Your task to perform on an android device: toggle pop-ups in chrome Image 0: 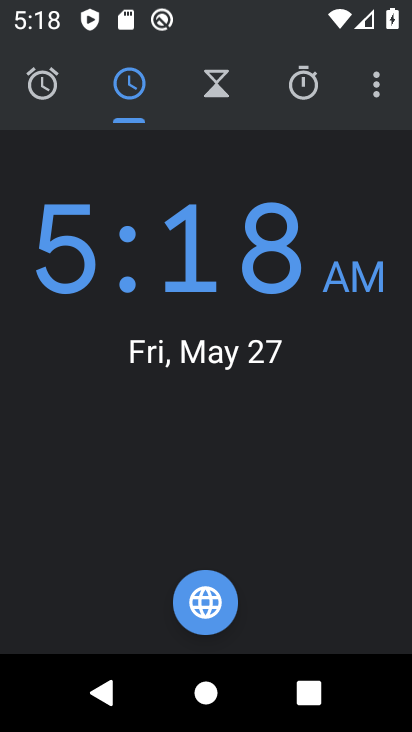
Step 0: press back button
Your task to perform on an android device: toggle pop-ups in chrome Image 1: 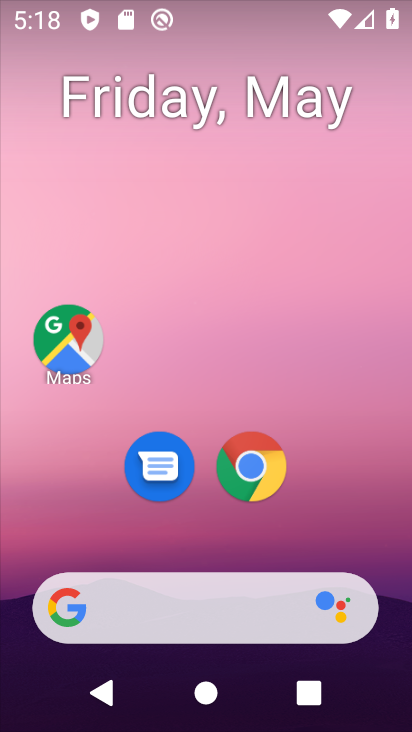
Step 1: drag from (306, 257) to (257, 6)
Your task to perform on an android device: toggle pop-ups in chrome Image 2: 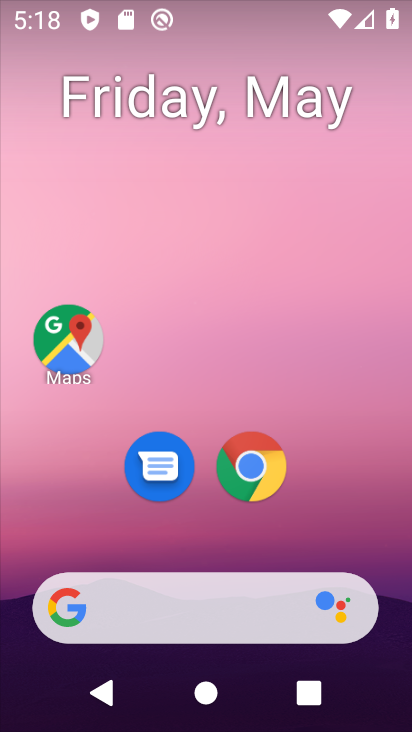
Step 2: drag from (330, 436) to (209, 11)
Your task to perform on an android device: toggle pop-ups in chrome Image 3: 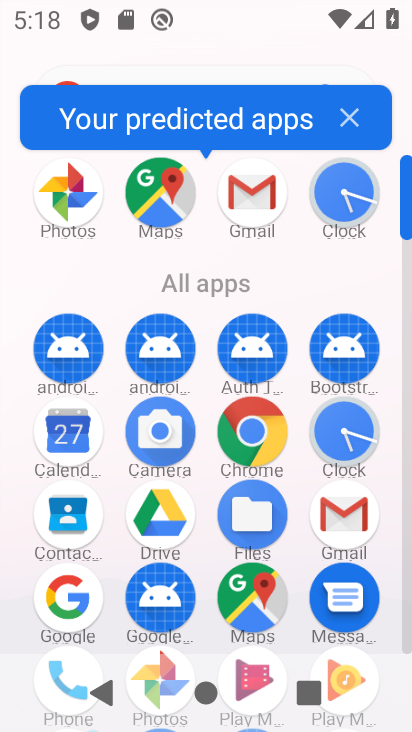
Step 3: drag from (0, 526) to (0, 260)
Your task to perform on an android device: toggle pop-ups in chrome Image 4: 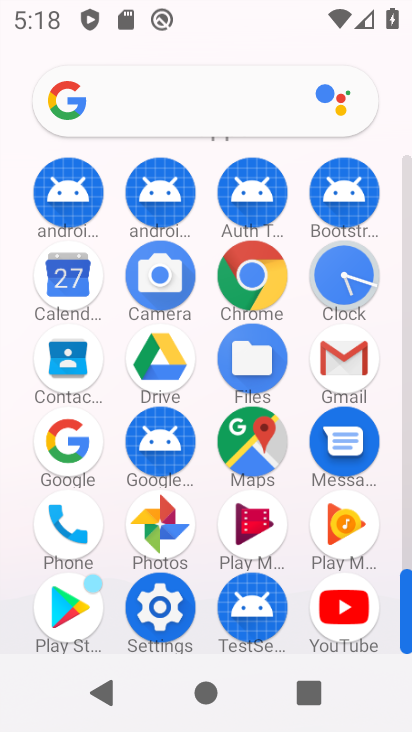
Step 4: click (245, 275)
Your task to perform on an android device: toggle pop-ups in chrome Image 5: 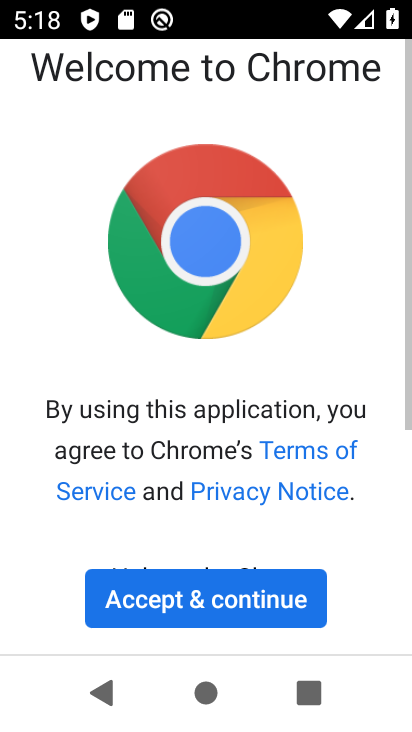
Step 5: click (230, 592)
Your task to perform on an android device: toggle pop-ups in chrome Image 6: 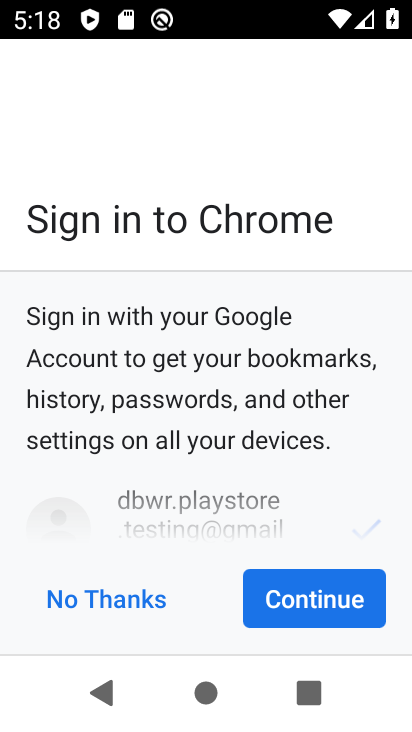
Step 6: click (349, 582)
Your task to perform on an android device: toggle pop-ups in chrome Image 7: 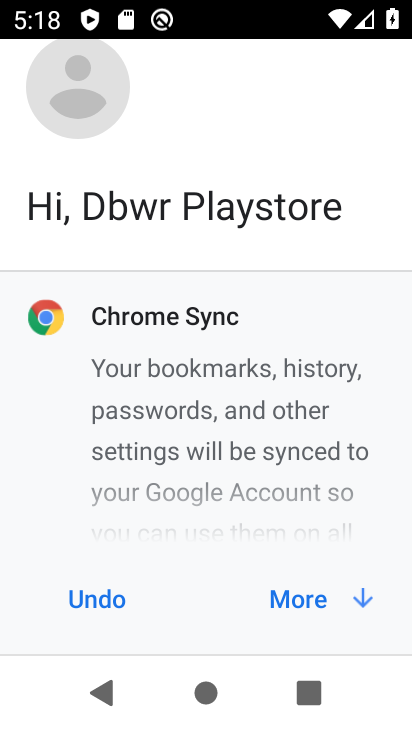
Step 7: click (321, 601)
Your task to perform on an android device: toggle pop-ups in chrome Image 8: 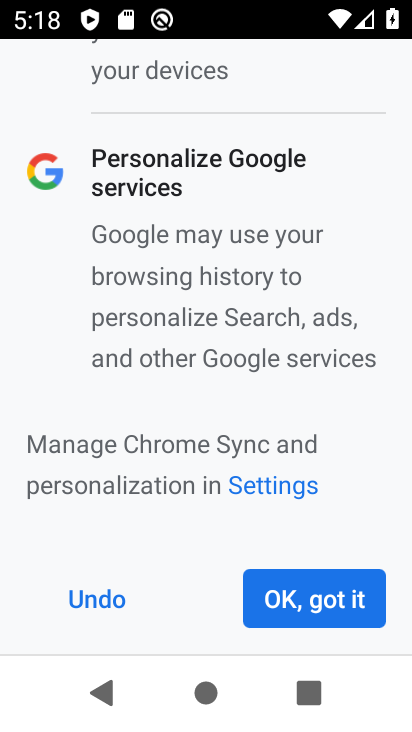
Step 8: click (321, 600)
Your task to perform on an android device: toggle pop-ups in chrome Image 9: 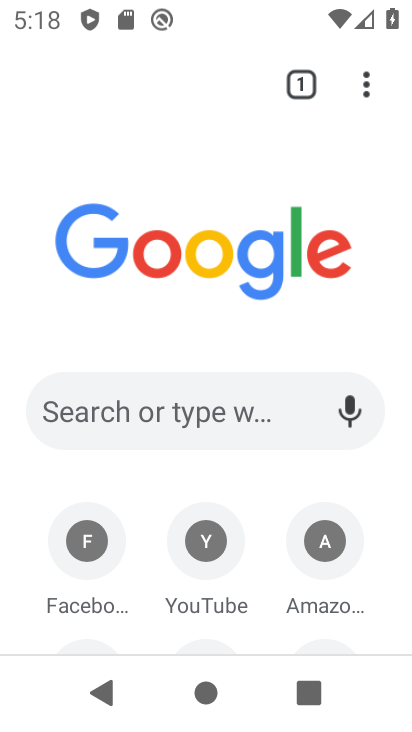
Step 9: drag from (365, 94) to (94, 519)
Your task to perform on an android device: toggle pop-ups in chrome Image 10: 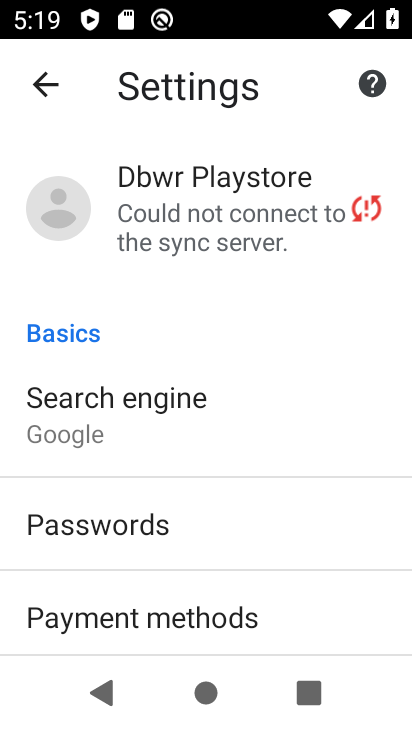
Step 10: drag from (256, 505) to (246, 153)
Your task to perform on an android device: toggle pop-ups in chrome Image 11: 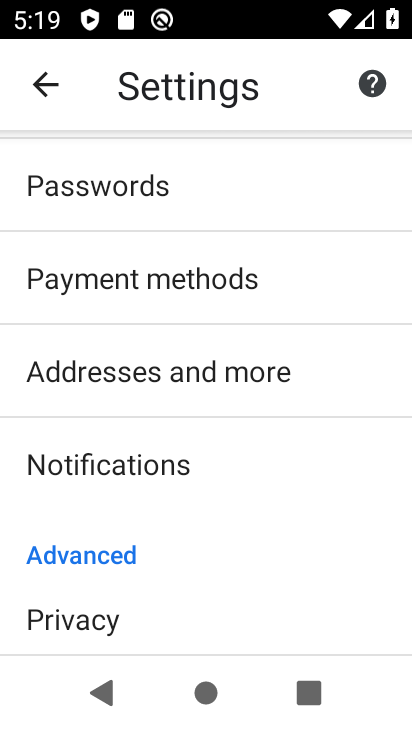
Step 11: drag from (260, 542) to (234, 162)
Your task to perform on an android device: toggle pop-ups in chrome Image 12: 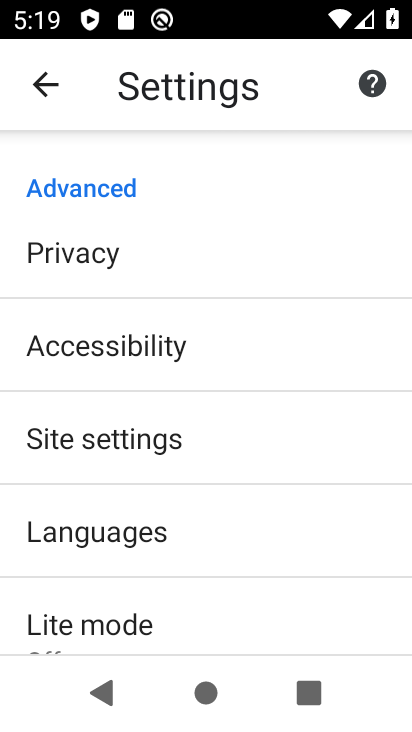
Step 12: drag from (155, 578) to (184, 363)
Your task to perform on an android device: toggle pop-ups in chrome Image 13: 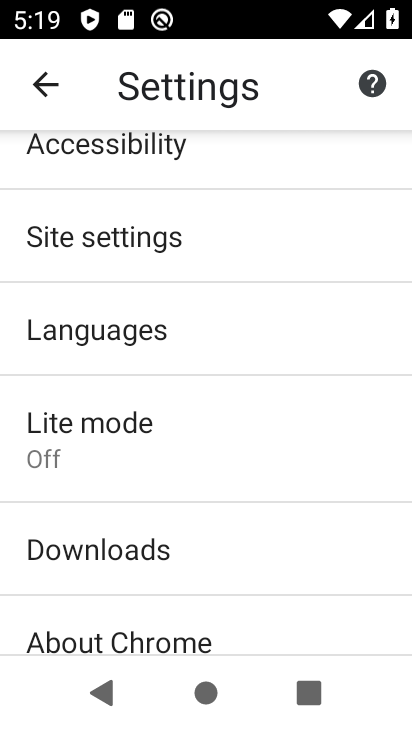
Step 13: click (158, 234)
Your task to perform on an android device: toggle pop-ups in chrome Image 14: 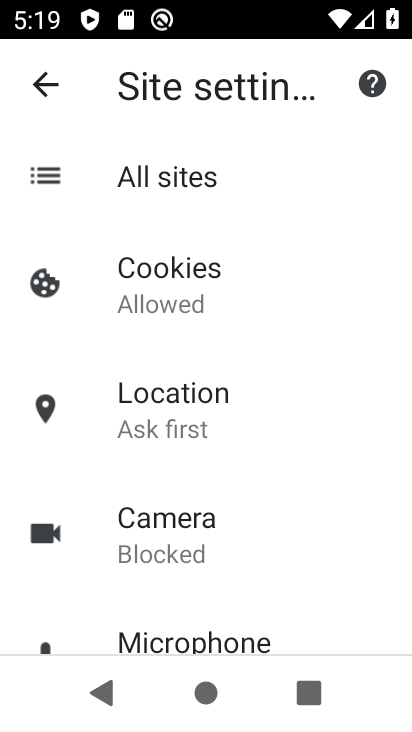
Step 14: drag from (270, 599) to (305, 195)
Your task to perform on an android device: toggle pop-ups in chrome Image 15: 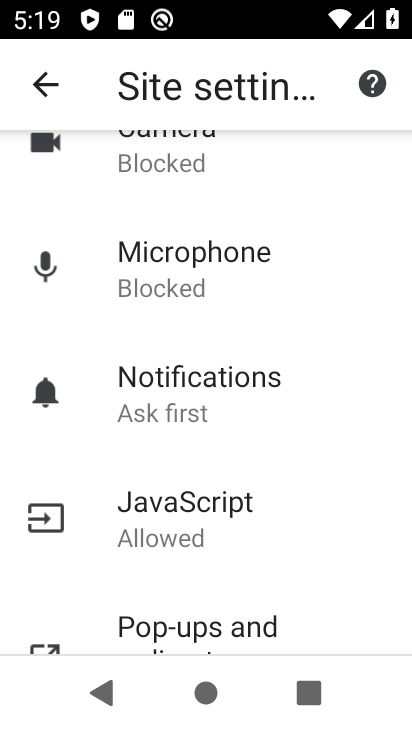
Step 15: drag from (189, 539) to (236, 233)
Your task to perform on an android device: toggle pop-ups in chrome Image 16: 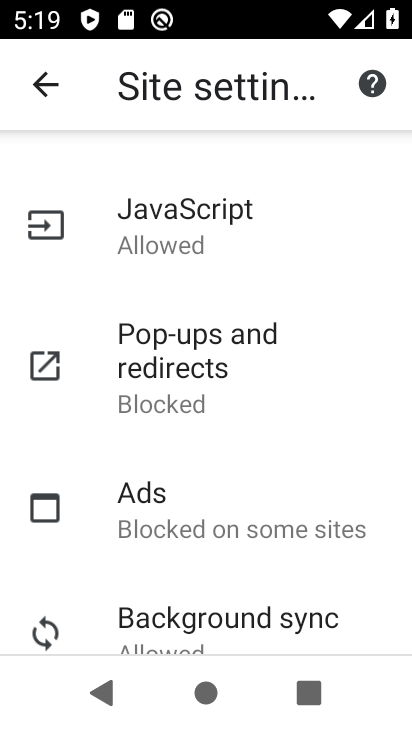
Step 16: click (178, 343)
Your task to perform on an android device: toggle pop-ups in chrome Image 17: 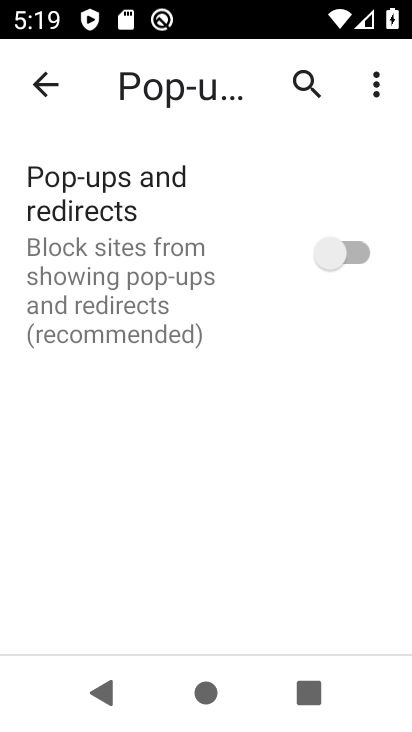
Step 17: click (341, 250)
Your task to perform on an android device: toggle pop-ups in chrome Image 18: 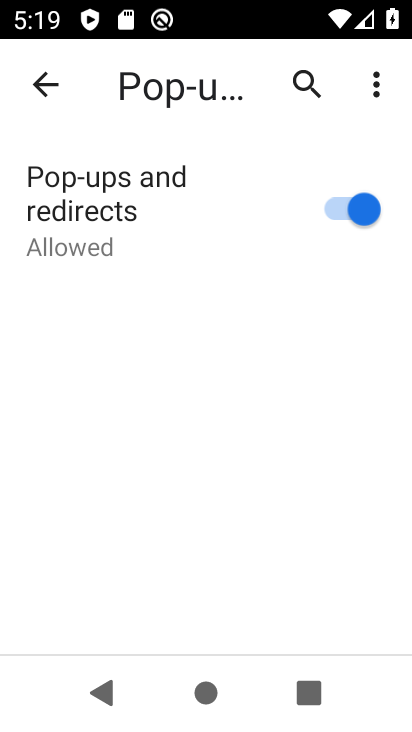
Step 18: task complete